Your task to perform on an android device: turn on notifications settings in the gmail app Image 0: 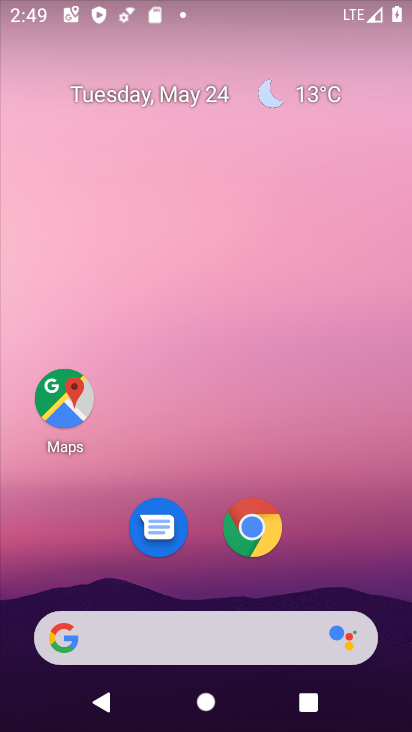
Step 0: drag from (314, 586) to (312, 132)
Your task to perform on an android device: turn on notifications settings in the gmail app Image 1: 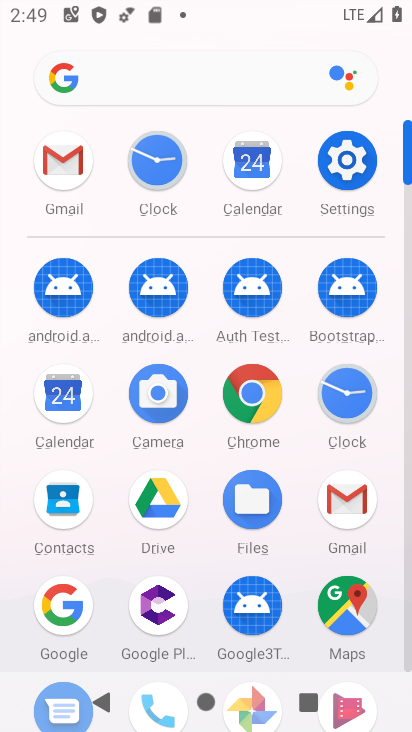
Step 1: click (354, 500)
Your task to perform on an android device: turn on notifications settings in the gmail app Image 2: 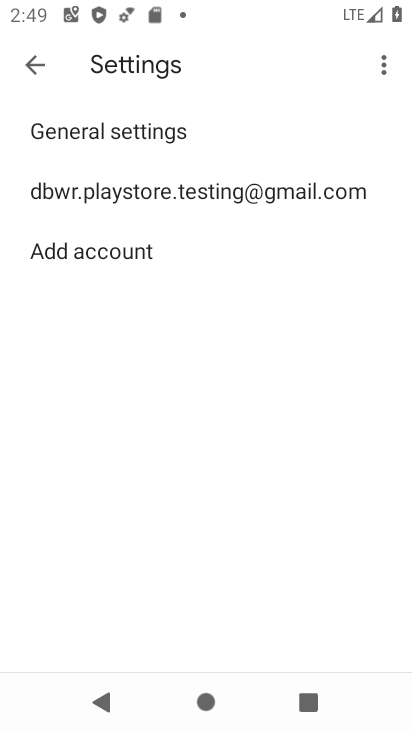
Step 2: click (166, 206)
Your task to perform on an android device: turn on notifications settings in the gmail app Image 3: 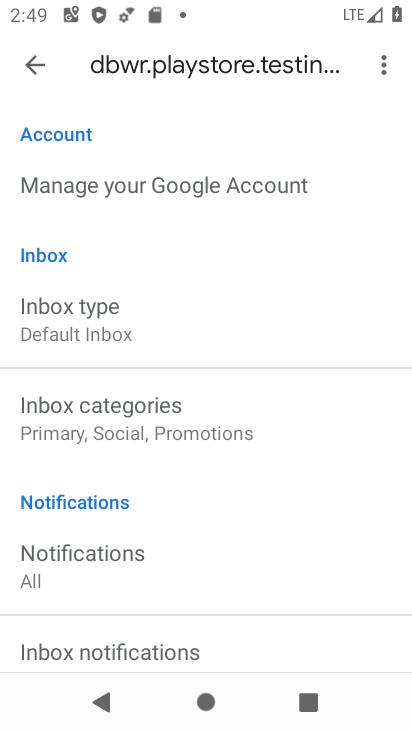
Step 3: drag from (133, 610) to (227, 215)
Your task to perform on an android device: turn on notifications settings in the gmail app Image 4: 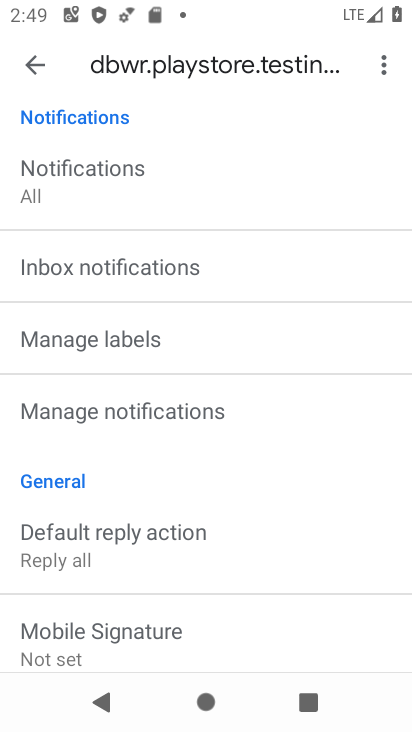
Step 4: click (169, 412)
Your task to perform on an android device: turn on notifications settings in the gmail app Image 5: 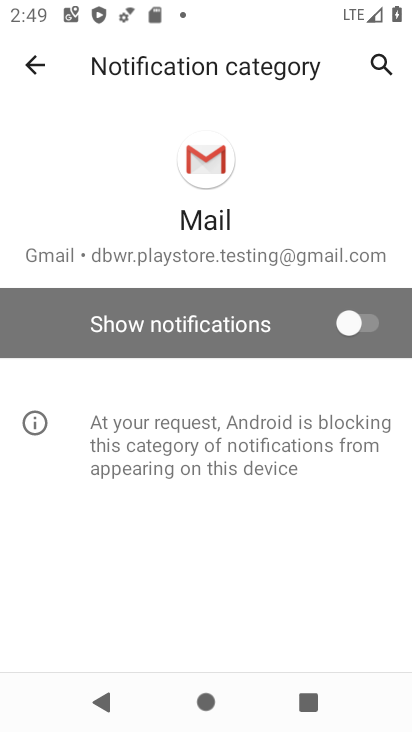
Step 5: click (352, 322)
Your task to perform on an android device: turn on notifications settings in the gmail app Image 6: 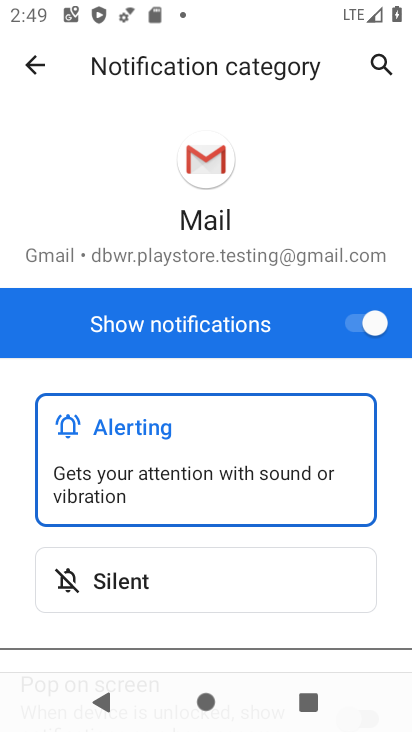
Step 6: task complete